Your task to perform on an android device: See recent photos Image 0: 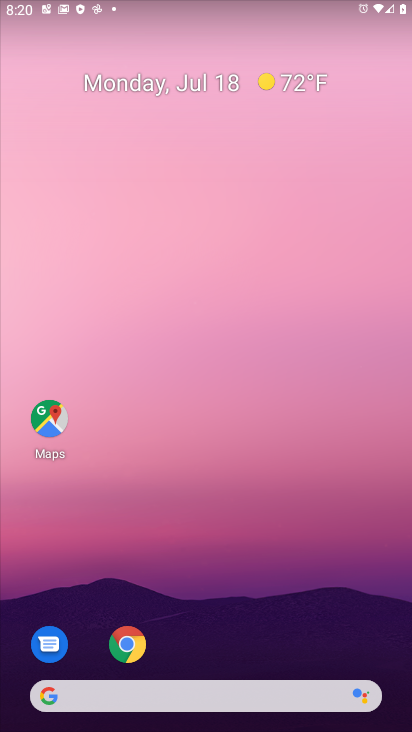
Step 0: drag from (201, 198) to (152, 19)
Your task to perform on an android device: See recent photos Image 1: 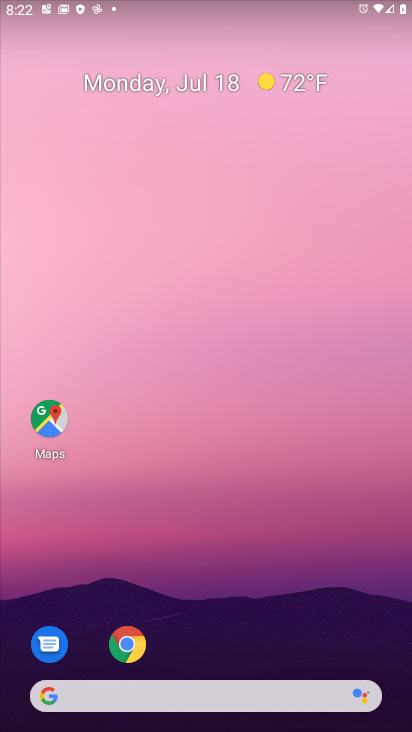
Step 1: drag from (323, 592) to (215, 36)
Your task to perform on an android device: See recent photos Image 2: 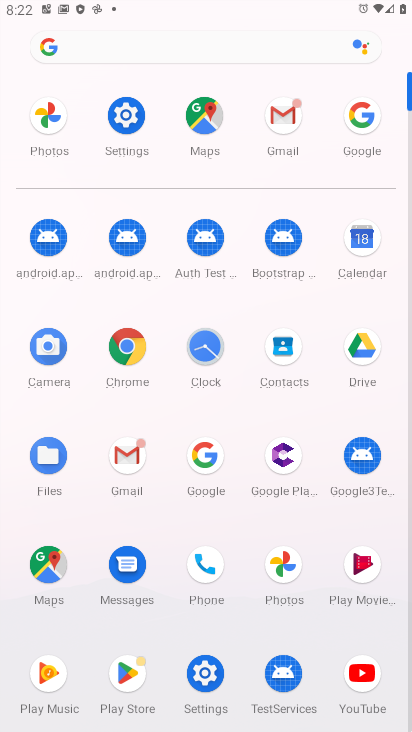
Step 2: click (206, 463)
Your task to perform on an android device: See recent photos Image 3: 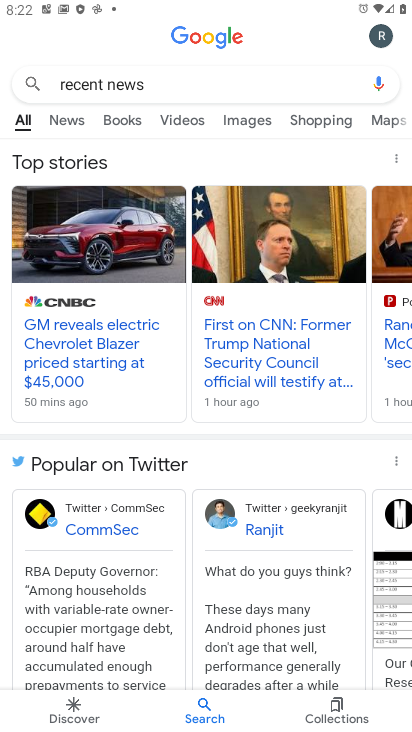
Step 3: task complete